Your task to perform on an android device: Go to settings Image 0: 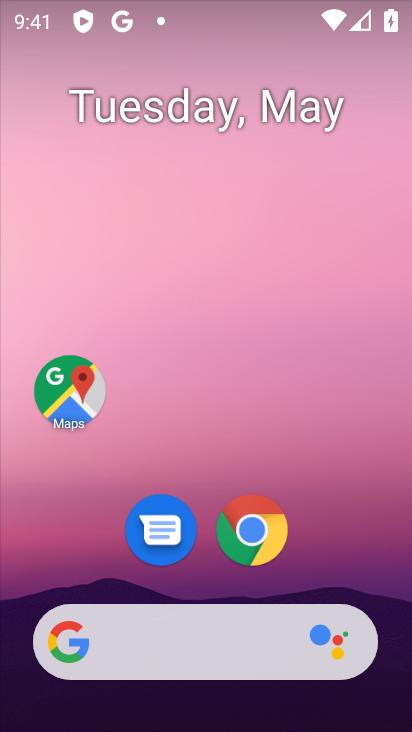
Step 0: drag from (198, 531) to (262, 156)
Your task to perform on an android device: Go to settings Image 1: 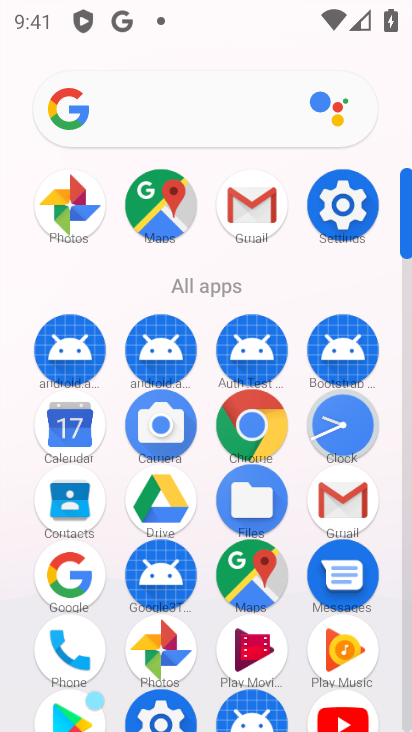
Step 1: click (335, 205)
Your task to perform on an android device: Go to settings Image 2: 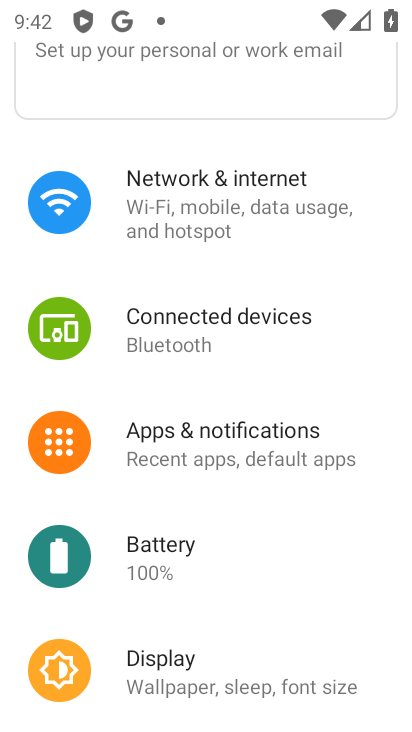
Step 2: task complete